Your task to perform on an android device: Go to wifi settings Image 0: 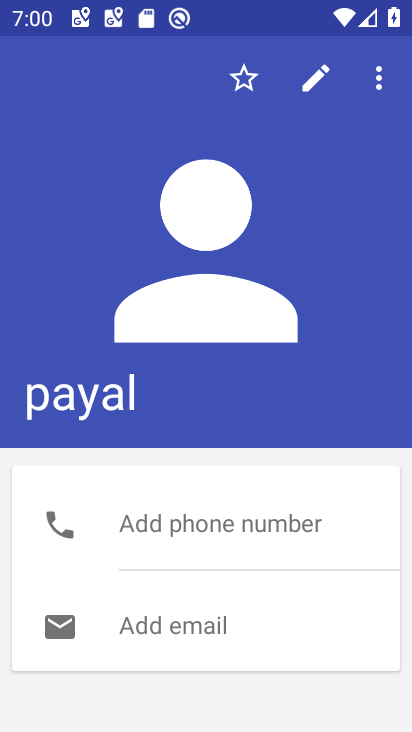
Step 0: press home button
Your task to perform on an android device: Go to wifi settings Image 1: 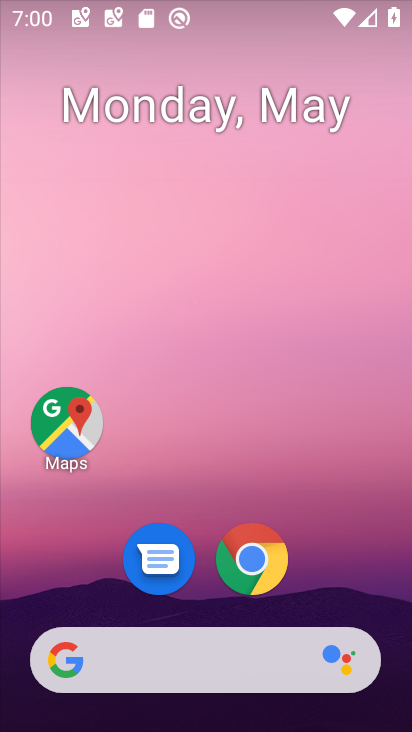
Step 1: drag from (390, 651) to (282, 5)
Your task to perform on an android device: Go to wifi settings Image 2: 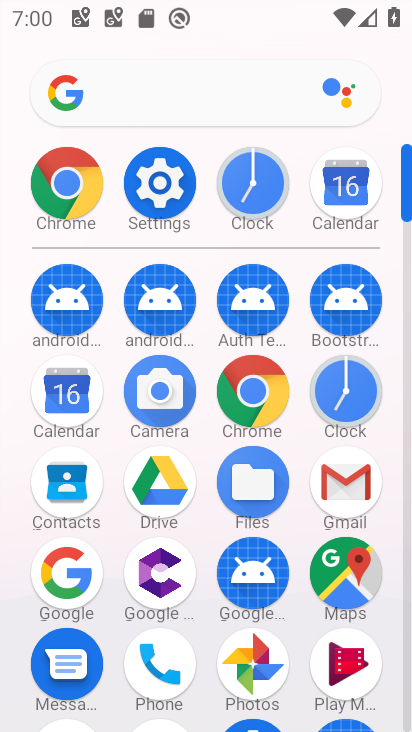
Step 2: click (150, 188)
Your task to perform on an android device: Go to wifi settings Image 3: 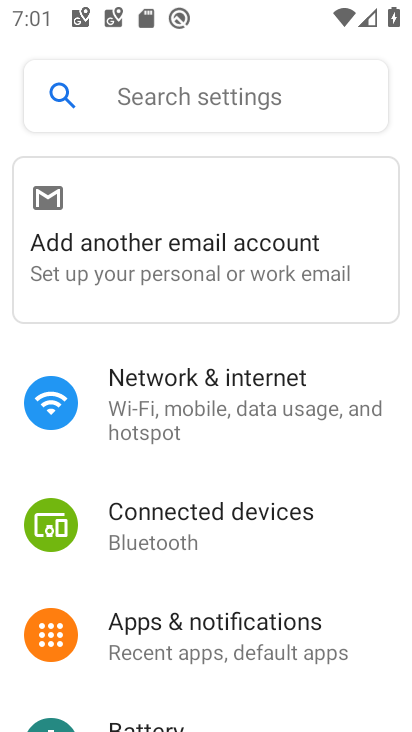
Step 3: click (113, 404)
Your task to perform on an android device: Go to wifi settings Image 4: 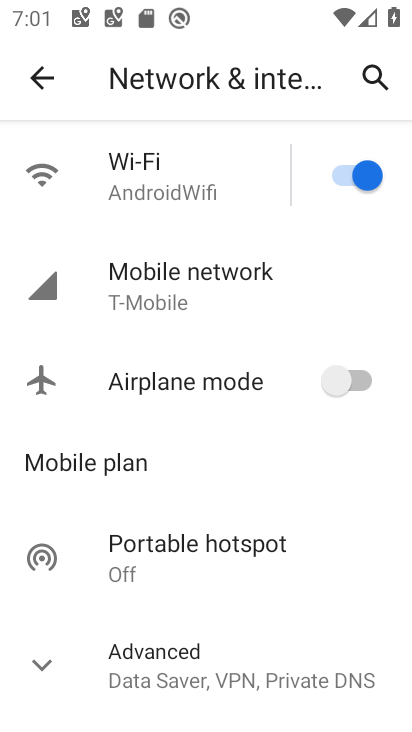
Step 4: click (131, 205)
Your task to perform on an android device: Go to wifi settings Image 5: 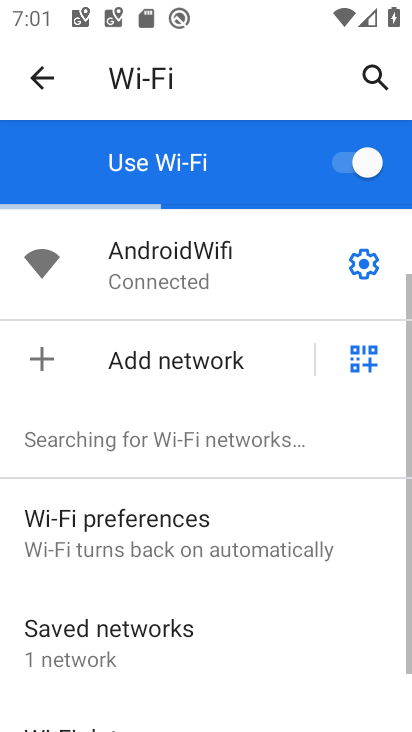
Step 5: task complete